Your task to perform on an android device: Go to Maps Image 0: 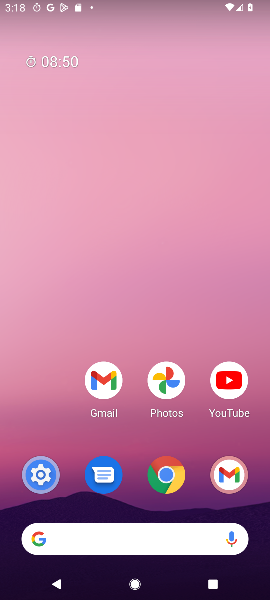
Step 0: press home button
Your task to perform on an android device: Go to Maps Image 1: 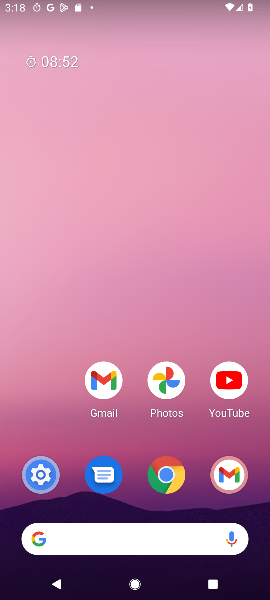
Step 1: drag from (47, 411) to (39, 156)
Your task to perform on an android device: Go to Maps Image 2: 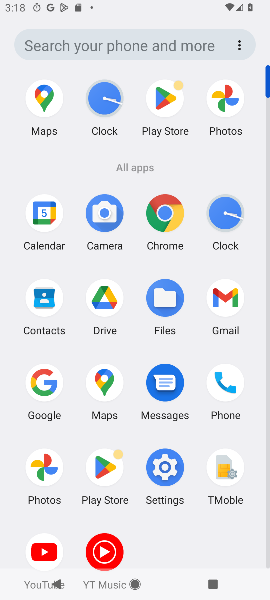
Step 2: click (98, 392)
Your task to perform on an android device: Go to Maps Image 3: 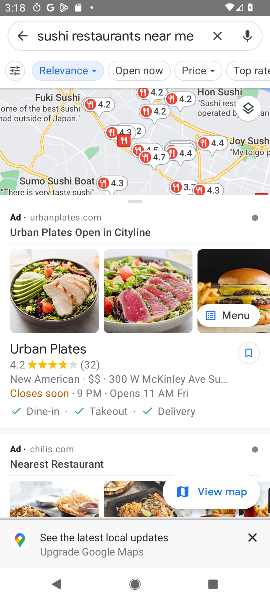
Step 3: task complete